Your task to perform on an android device: turn off javascript in the chrome app Image 0: 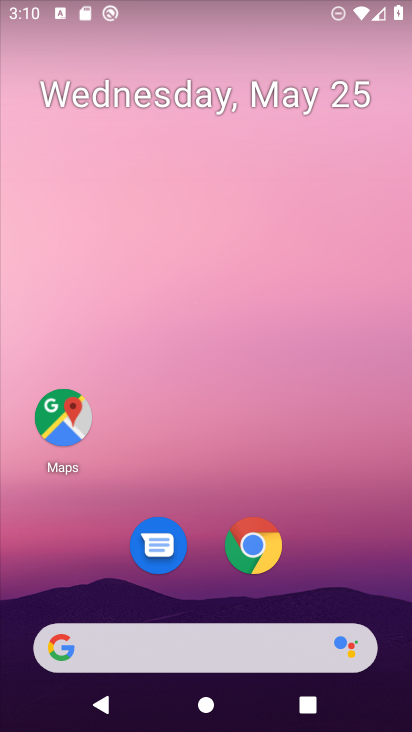
Step 0: click (268, 532)
Your task to perform on an android device: turn off javascript in the chrome app Image 1: 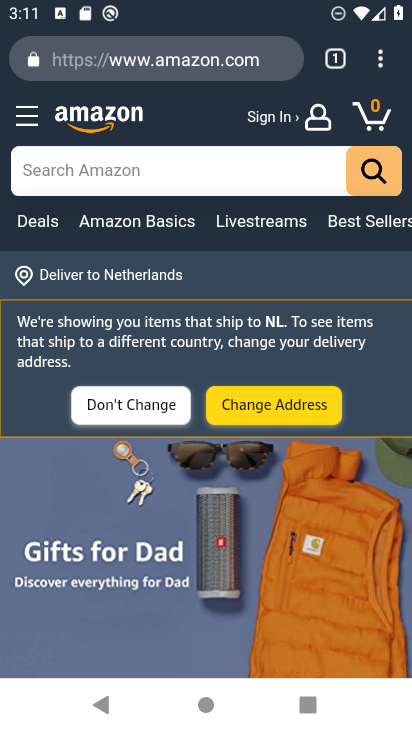
Step 1: click (388, 51)
Your task to perform on an android device: turn off javascript in the chrome app Image 2: 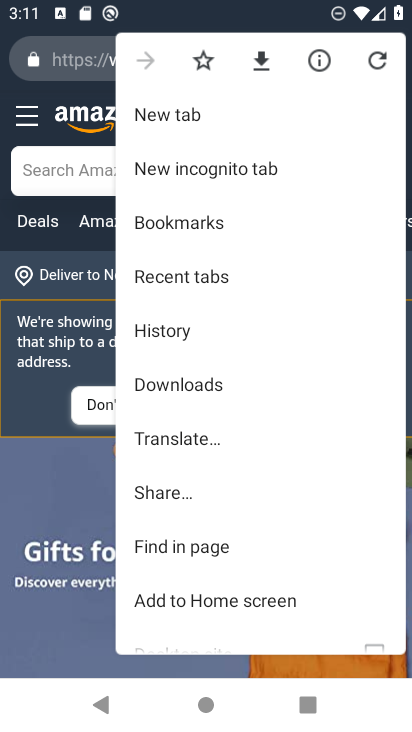
Step 2: drag from (232, 571) to (223, 276)
Your task to perform on an android device: turn off javascript in the chrome app Image 3: 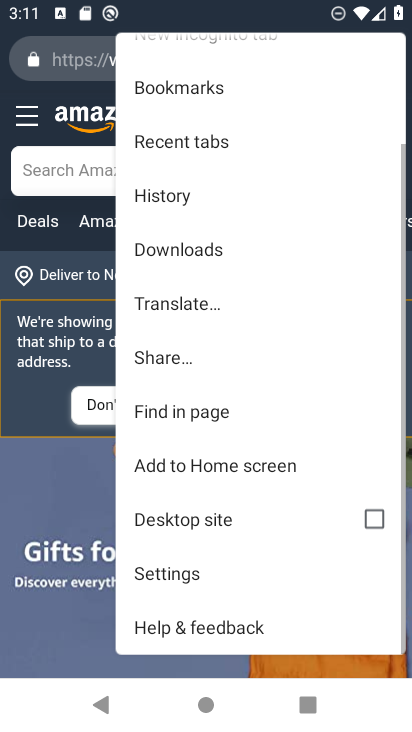
Step 3: click (202, 565)
Your task to perform on an android device: turn off javascript in the chrome app Image 4: 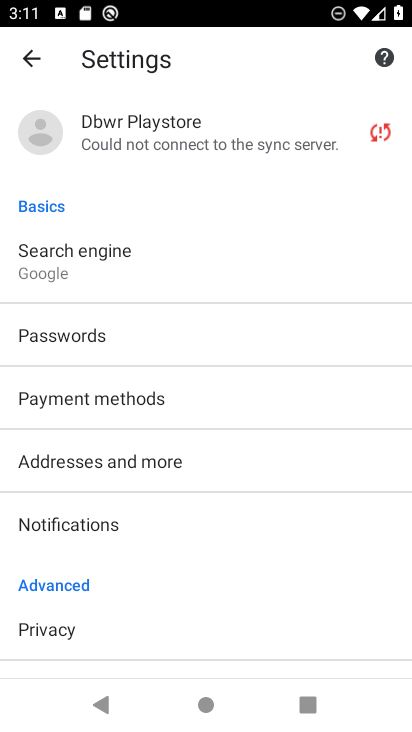
Step 4: drag from (285, 624) to (264, 213)
Your task to perform on an android device: turn off javascript in the chrome app Image 5: 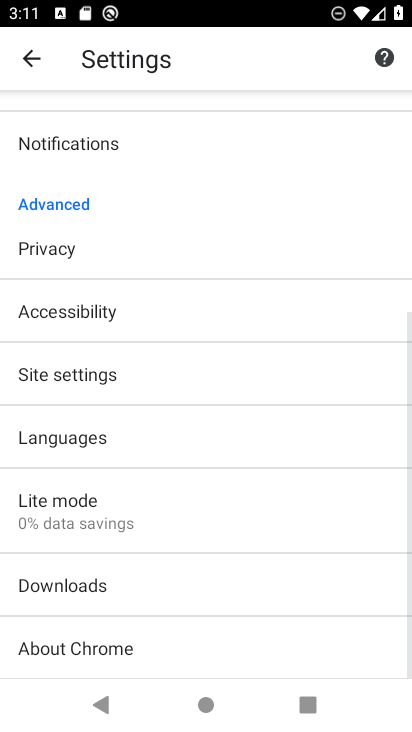
Step 5: click (184, 424)
Your task to perform on an android device: turn off javascript in the chrome app Image 6: 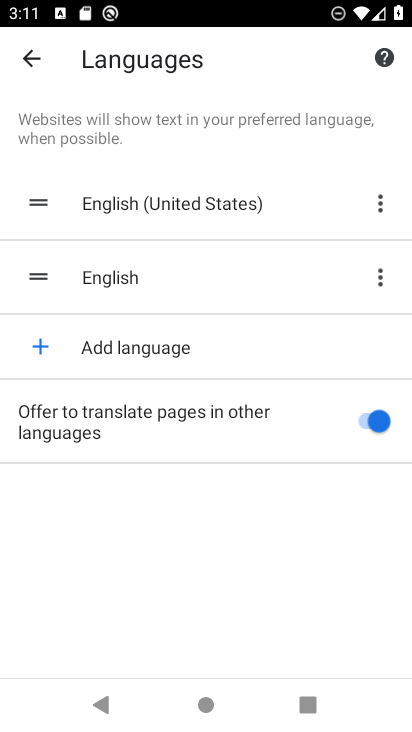
Step 6: click (36, 45)
Your task to perform on an android device: turn off javascript in the chrome app Image 7: 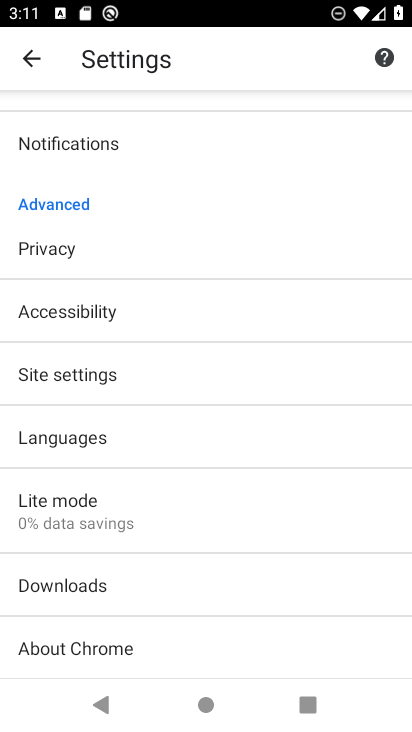
Step 7: click (231, 375)
Your task to perform on an android device: turn off javascript in the chrome app Image 8: 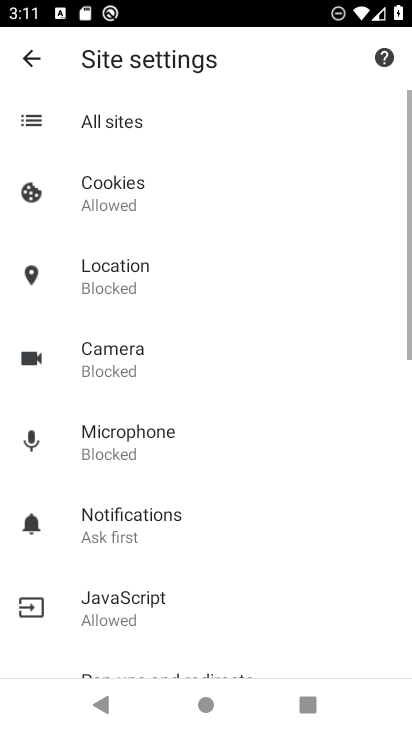
Step 8: click (242, 610)
Your task to perform on an android device: turn off javascript in the chrome app Image 9: 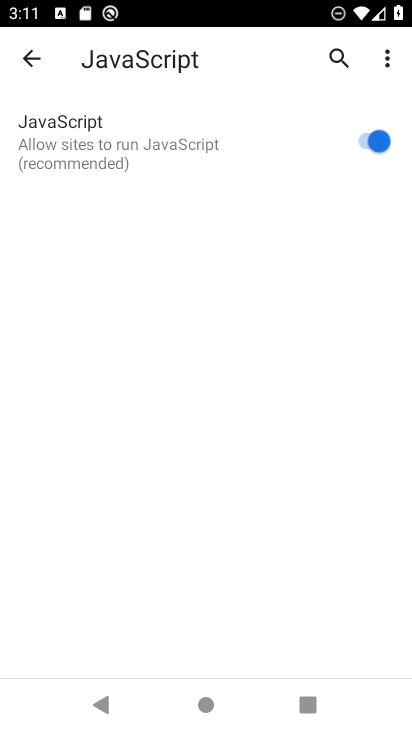
Step 9: click (369, 146)
Your task to perform on an android device: turn off javascript in the chrome app Image 10: 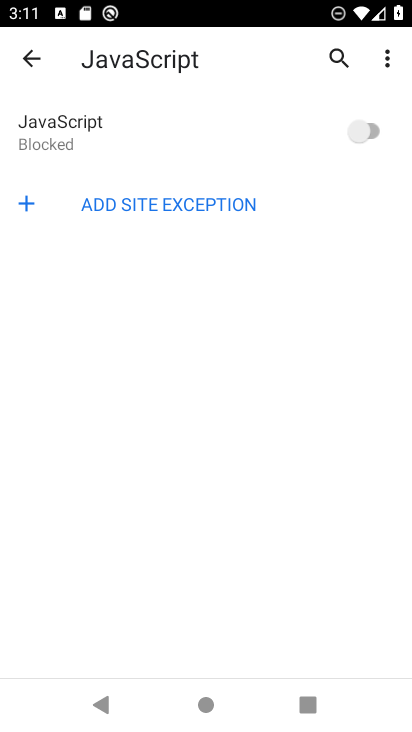
Step 10: task complete